Your task to perform on an android device: manage bookmarks in the chrome app Image 0: 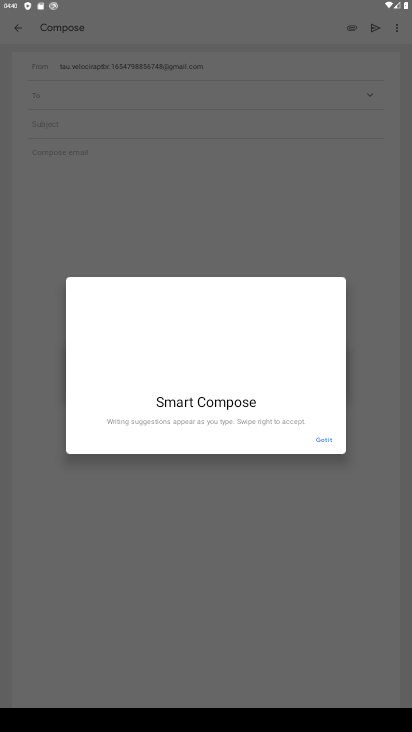
Step 0: press home button
Your task to perform on an android device: manage bookmarks in the chrome app Image 1: 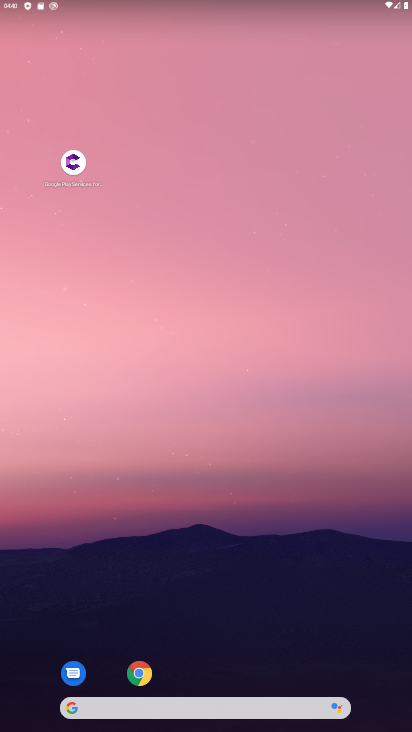
Step 1: drag from (195, 625) to (244, 16)
Your task to perform on an android device: manage bookmarks in the chrome app Image 2: 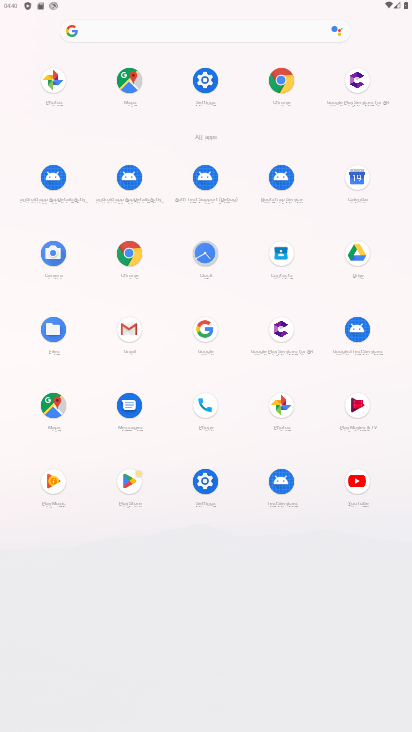
Step 2: click (133, 248)
Your task to perform on an android device: manage bookmarks in the chrome app Image 3: 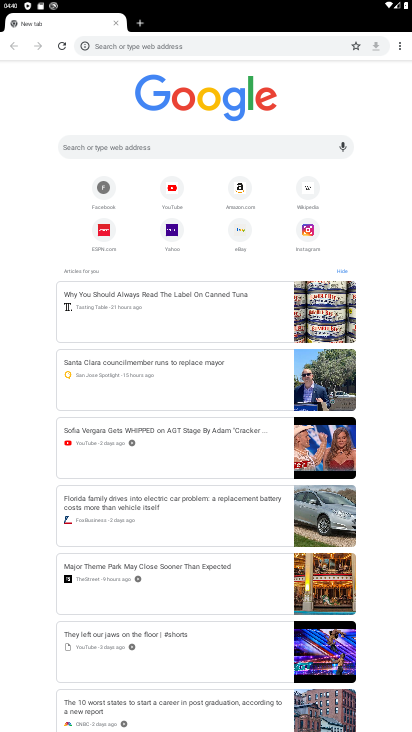
Step 3: click (398, 48)
Your task to perform on an android device: manage bookmarks in the chrome app Image 4: 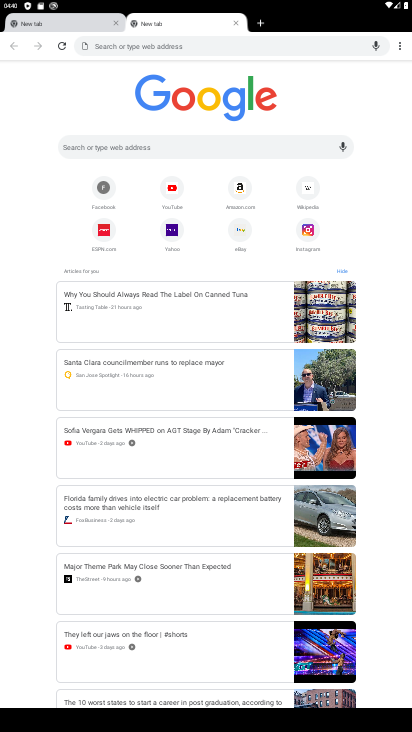
Step 4: click (402, 44)
Your task to perform on an android device: manage bookmarks in the chrome app Image 5: 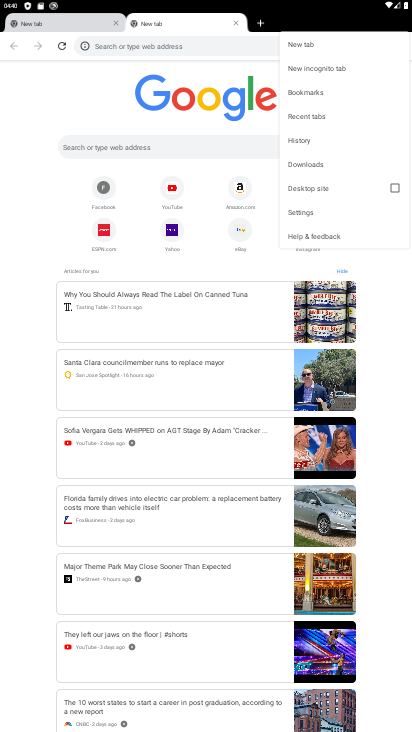
Step 5: click (320, 92)
Your task to perform on an android device: manage bookmarks in the chrome app Image 6: 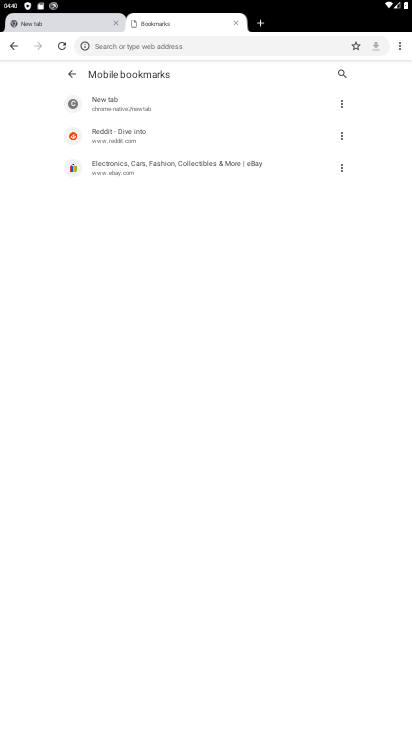
Step 6: click (341, 98)
Your task to perform on an android device: manage bookmarks in the chrome app Image 7: 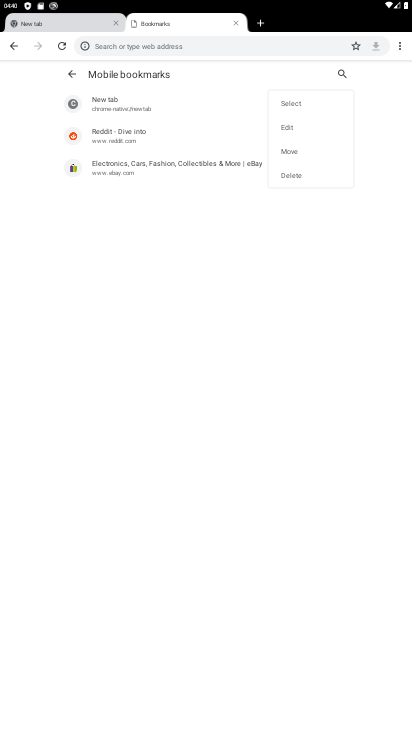
Step 7: click (300, 102)
Your task to perform on an android device: manage bookmarks in the chrome app Image 8: 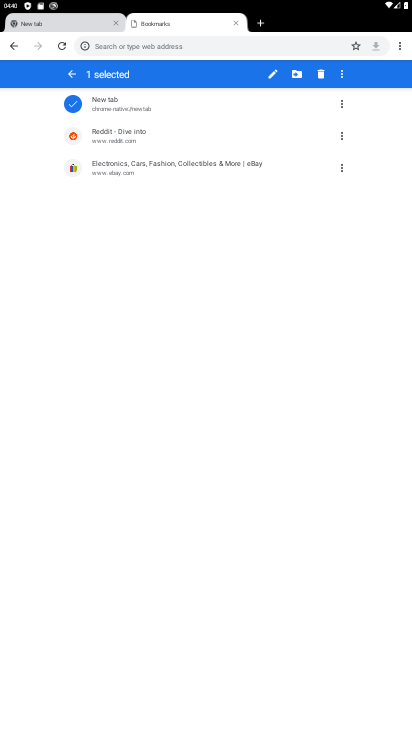
Step 8: click (180, 140)
Your task to perform on an android device: manage bookmarks in the chrome app Image 9: 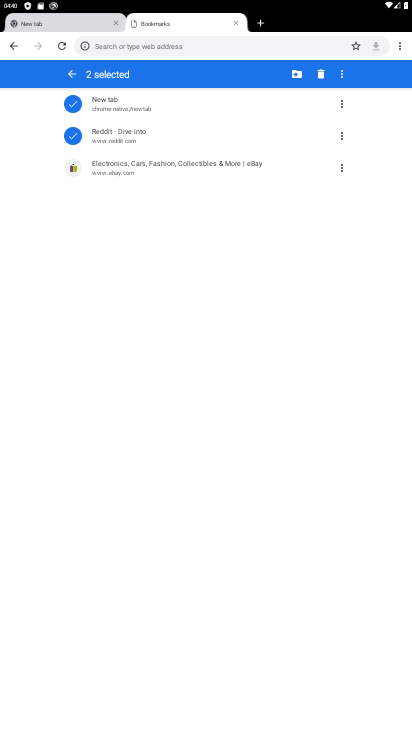
Step 9: click (162, 169)
Your task to perform on an android device: manage bookmarks in the chrome app Image 10: 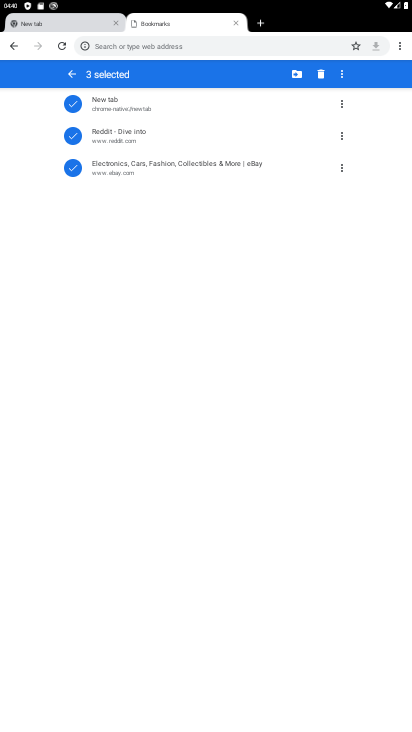
Step 10: click (293, 74)
Your task to perform on an android device: manage bookmarks in the chrome app Image 11: 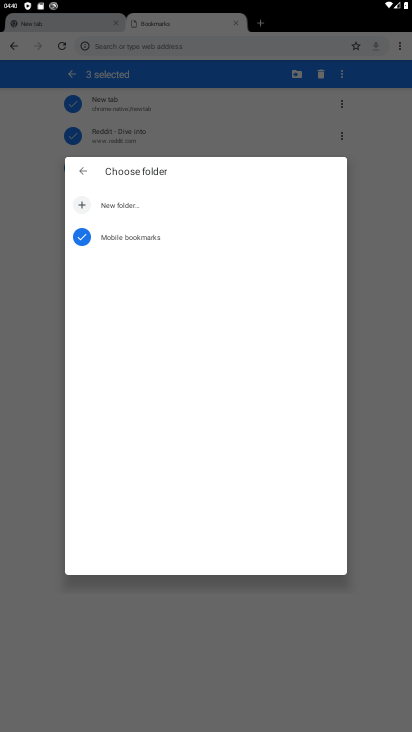
Step 11: click (129, 207)
Your task to perform on an android device: manage bookmarks in the chrome app Image 12: 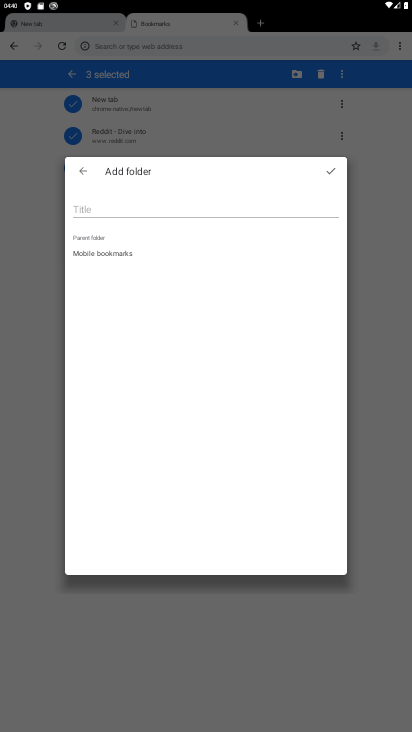
Step 12: click (134, 209)
Your task to perform on an android device: manage bookmarks in the chrome app Image 13: 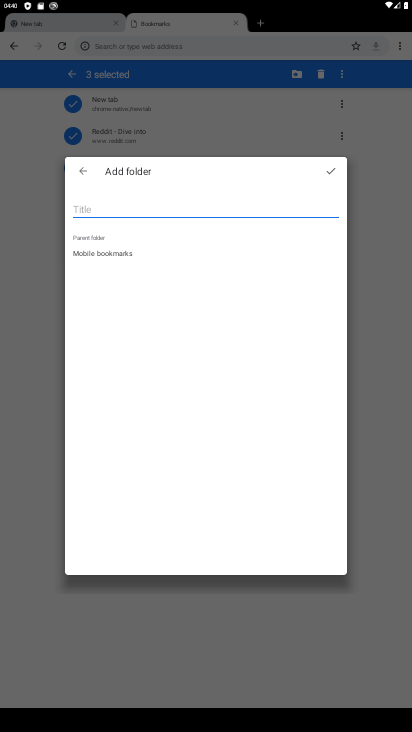
Step 13: type "edited"
Your task to perform on an android device: manage bookmarks in the chrome app Image 14: 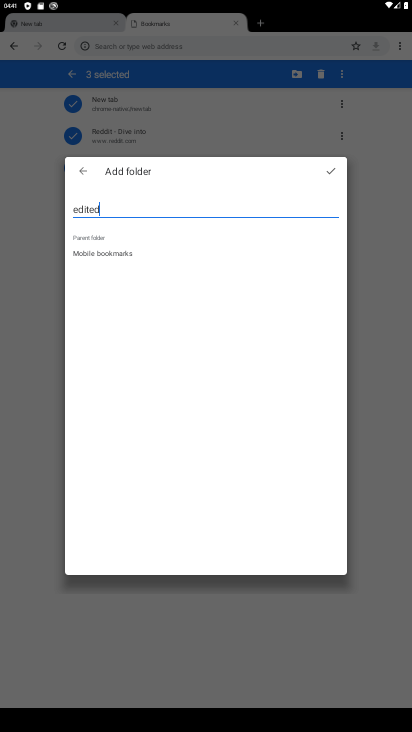
Step 14: click (330, 161)
Your task to perform on an android device: manage bookmarks in the chrome app Image 15: 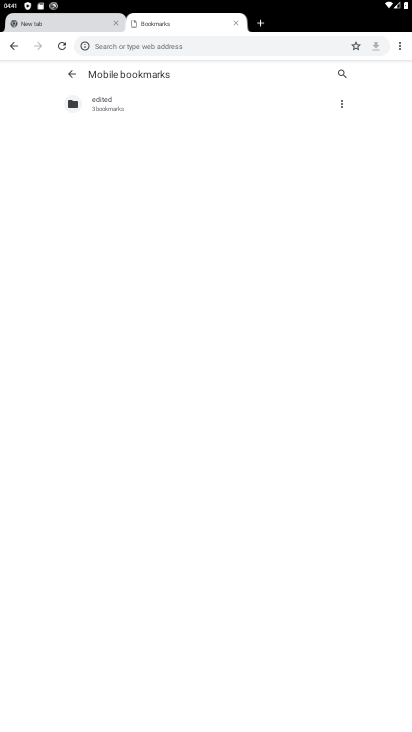
Step 15: task complete